Your task to perform on an android device: find snoozed emails in the gmail app Image 0: 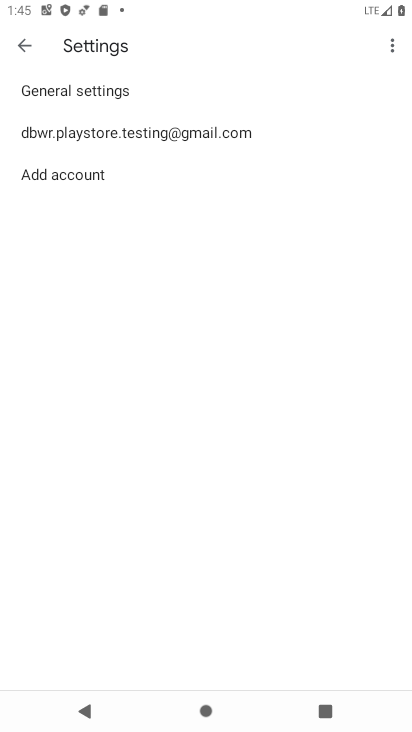
Step 0: press home button
Your task to perform on an android device: find snoozed emails in the gmail app Image 1: 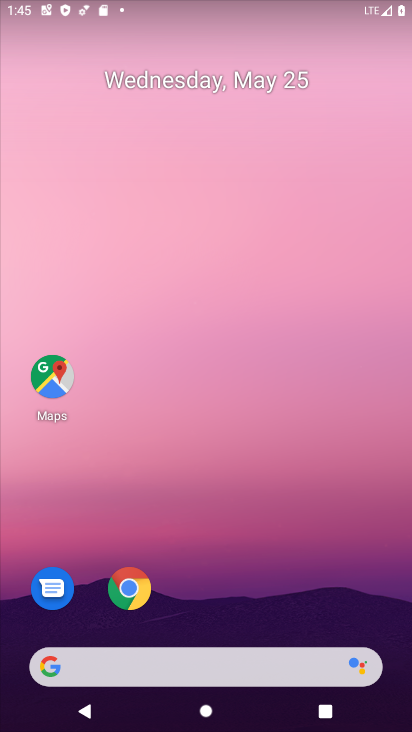
Step 1: drag from (307, 622) to (347, 0)
Your task to perform on an android device: find snoozed emails in the gmail app Image 2: 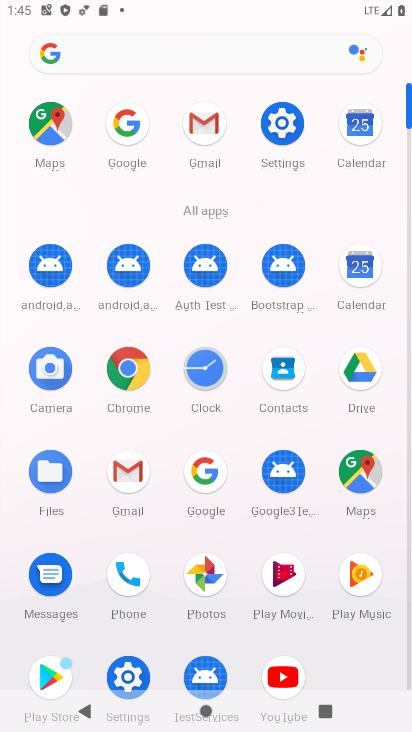
Step 2: click (198, 132)
Your task to perform on an android device: find snoozed emails in the gmail app Image 3: 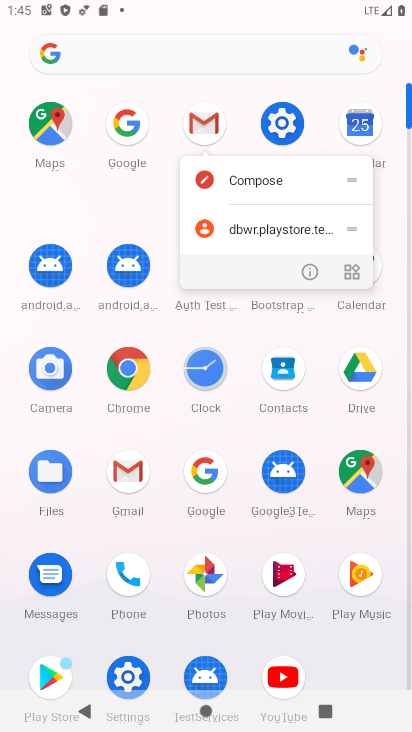
Step 3: click (198, 132)
Your task to perform on an android device: find snoozed emails in the gmail app Image 4: 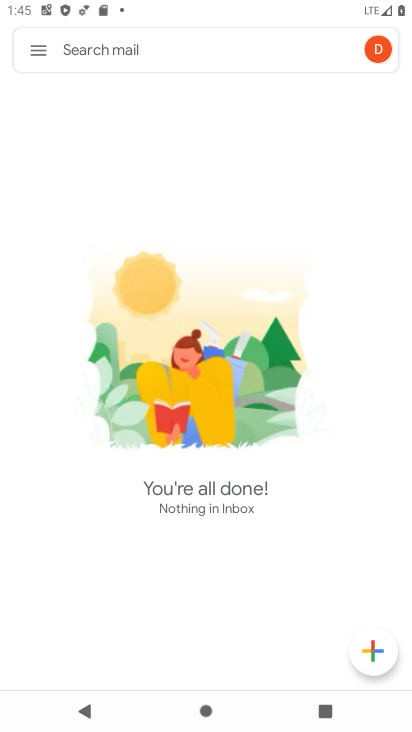
Step 4: click (36, 51)
Your task to perform on an android device: find snoozed emails in the gmail app Image 5: 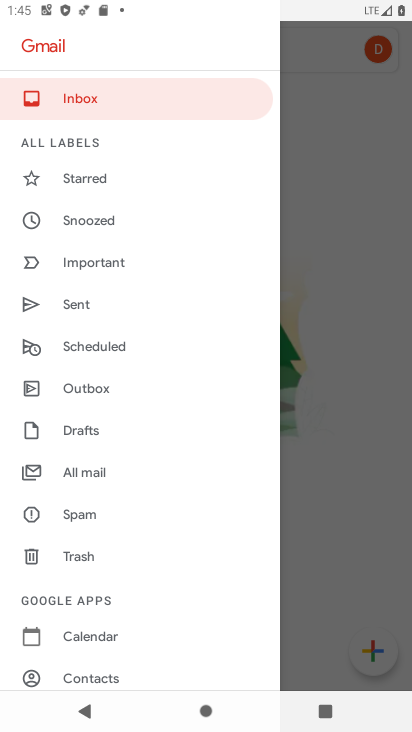
Step 5: click (87, 218)
Your task to perform on an android device: find snoozed emails in the gmail app Image 6: 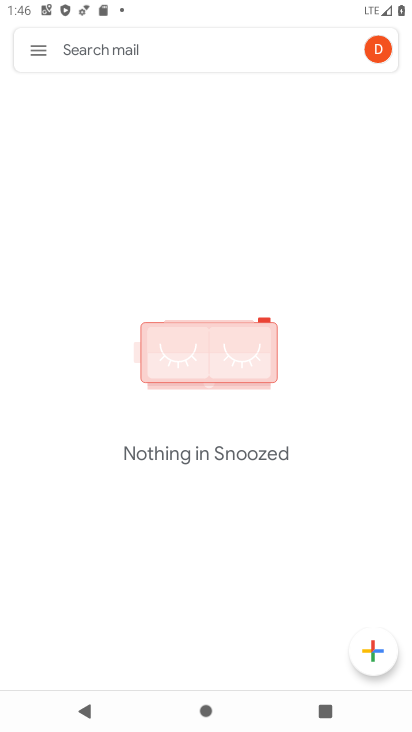
Step 6: task complete